Your task to perform on an android device: change text size in settings app Image 0: 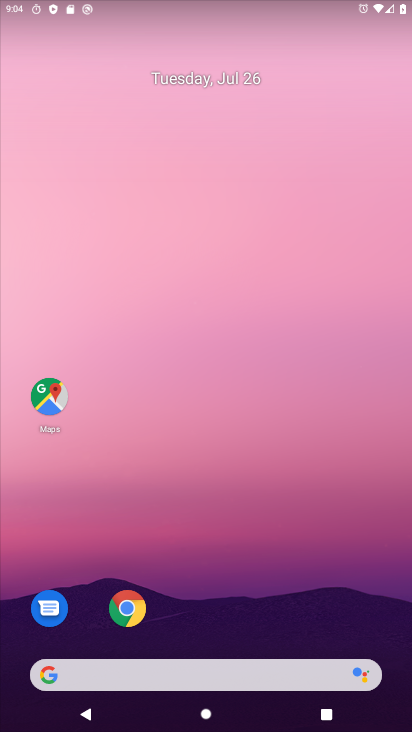
Step 0: drag from (300, 617) to (355, 9)
Your task to perform on an android device: change text size in settings app Image 1: 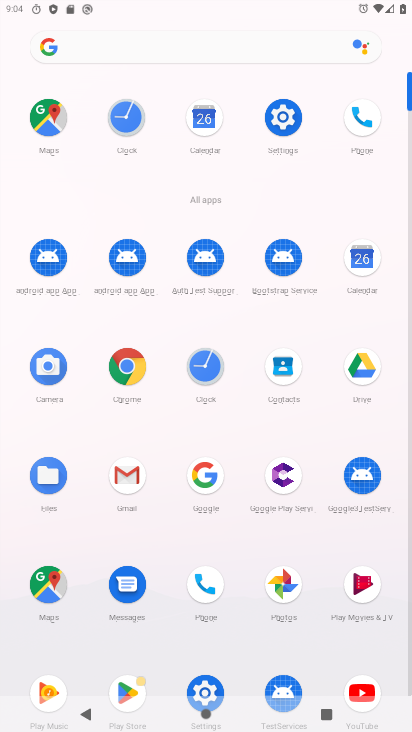
Step 1: click (288, 126)
Your task to perform on an android device: change text size in settings app Image 2: 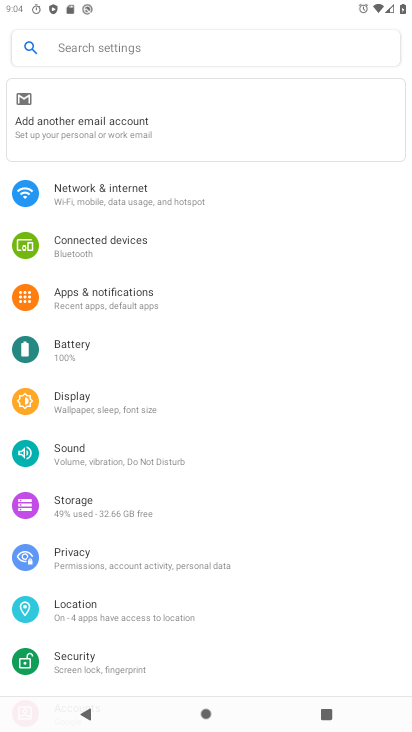
Step 2: click (85, 402)
Your task to perform on an android device: change text size in settings app Image 3: 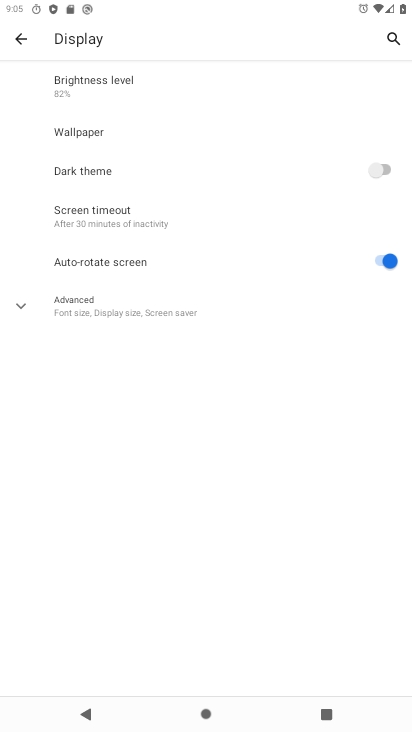
Step 3: click (189, 299)
Your task to perform on an android device: change text size in settings app Image 4: 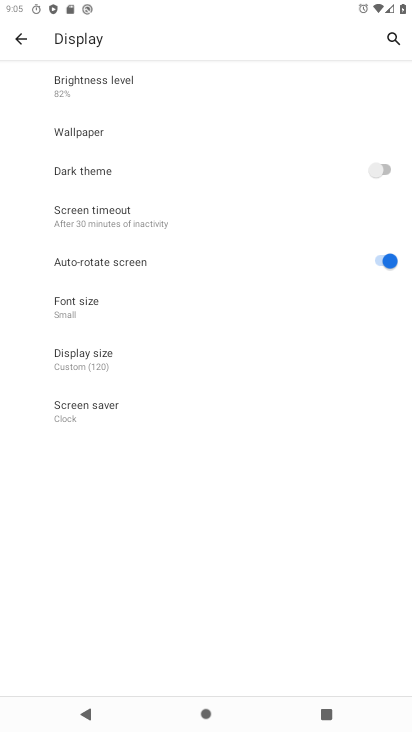
Step 4: click (90, 298)
Your task to perform on an android device: change text size in settings app Image 5: 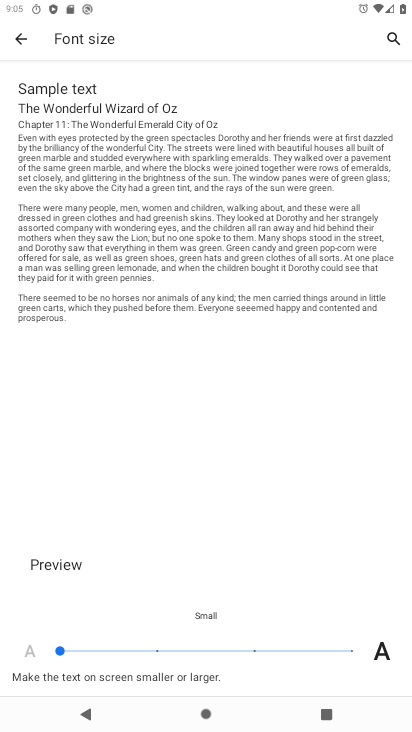
Step 5: task complete